Your task to perform on an android device: Add "jbl flip 4" to the cart on walmart Image 0: 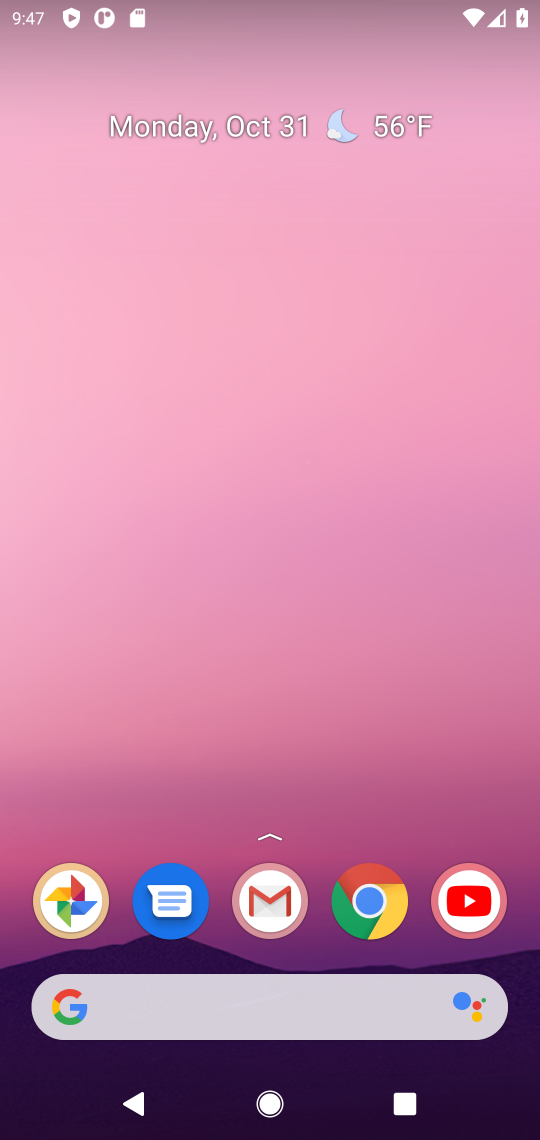
Step 0: drag from (269, 919) to (273, 338)
Your task to perform on an android device: Add "jbl flip 4" to the cart on walmart Image 1: 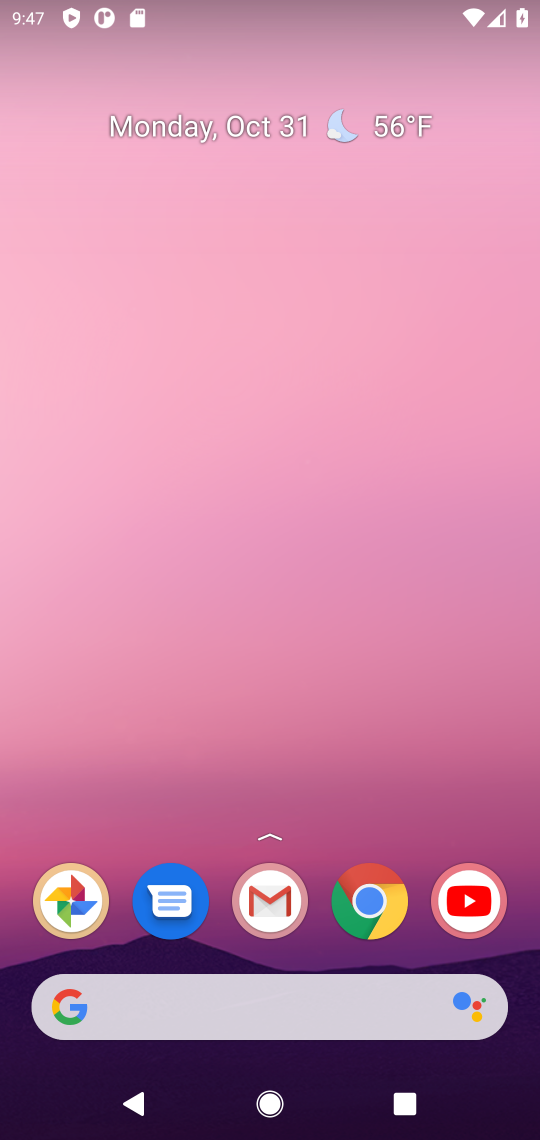
Step 1: drag from (359, 865) to (359, 307)
Your task to perform on an android device: Add "jbl flip 4" to the cart on walmart Image 2: 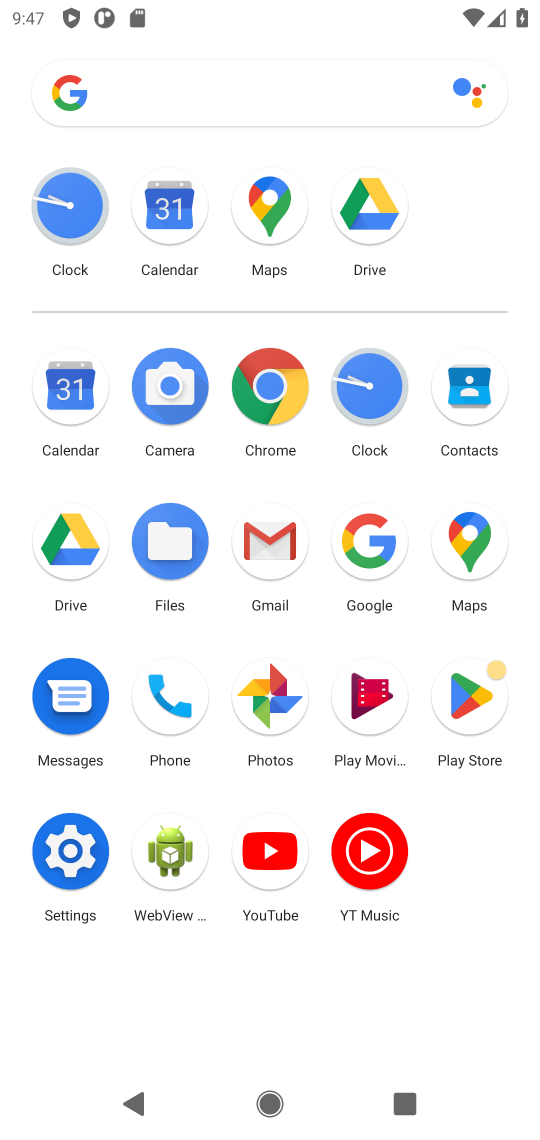
Step 2: click (358, 548)
Your task to perform on an android device: Add "jbl flip 4" to the cart on walmart Image 3: 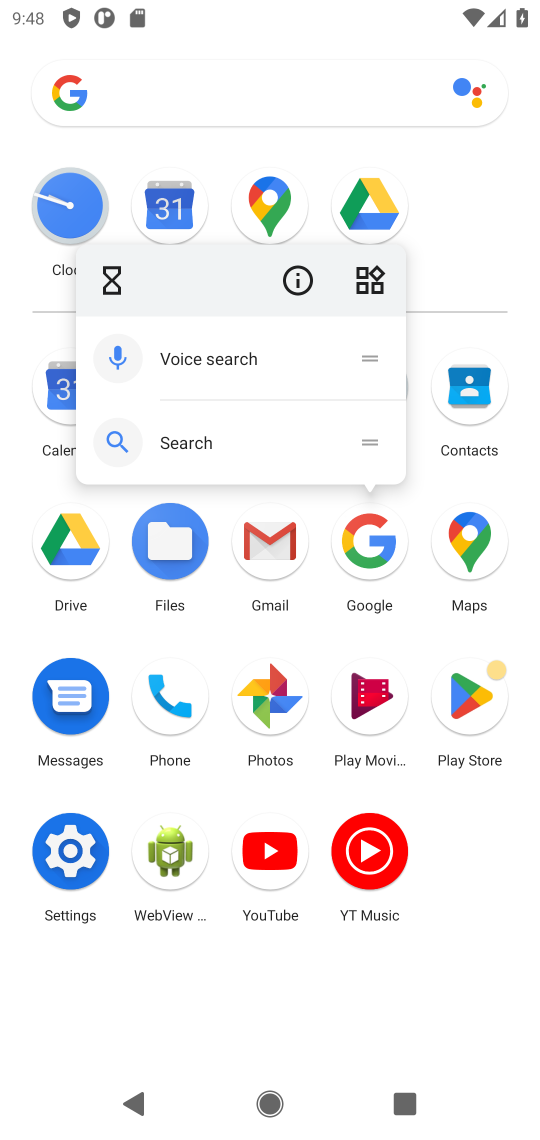
Step 3: click (369, 539)
Your task to perform on an android device: Add "jbl flip 4" to the cart on walmart Image 4: 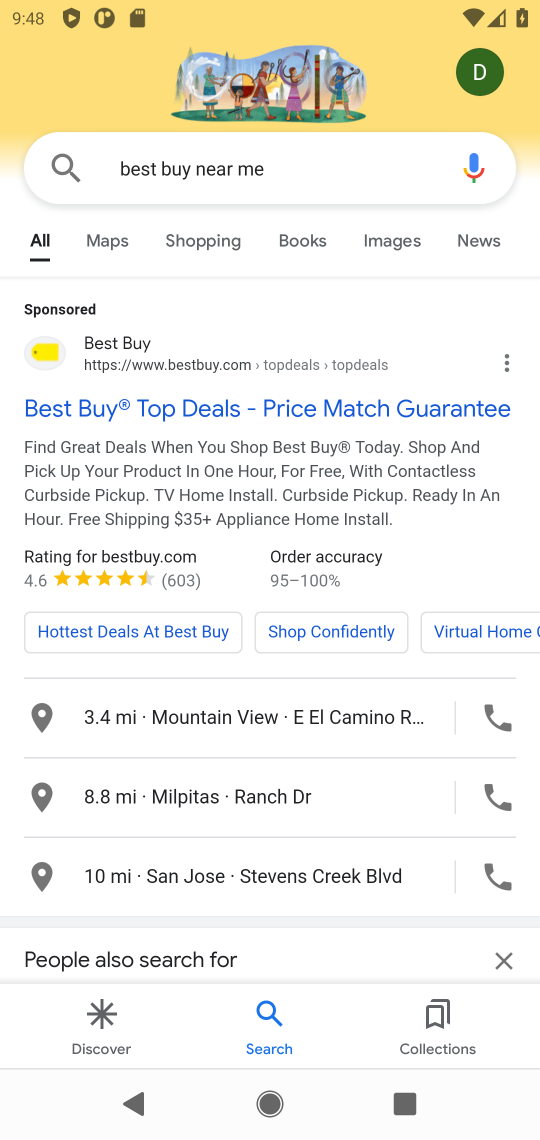
Step 4: click (306, 150)
Your task to perform on an android device: Add "jbl flip 4" to the cart on walmart Image 5: 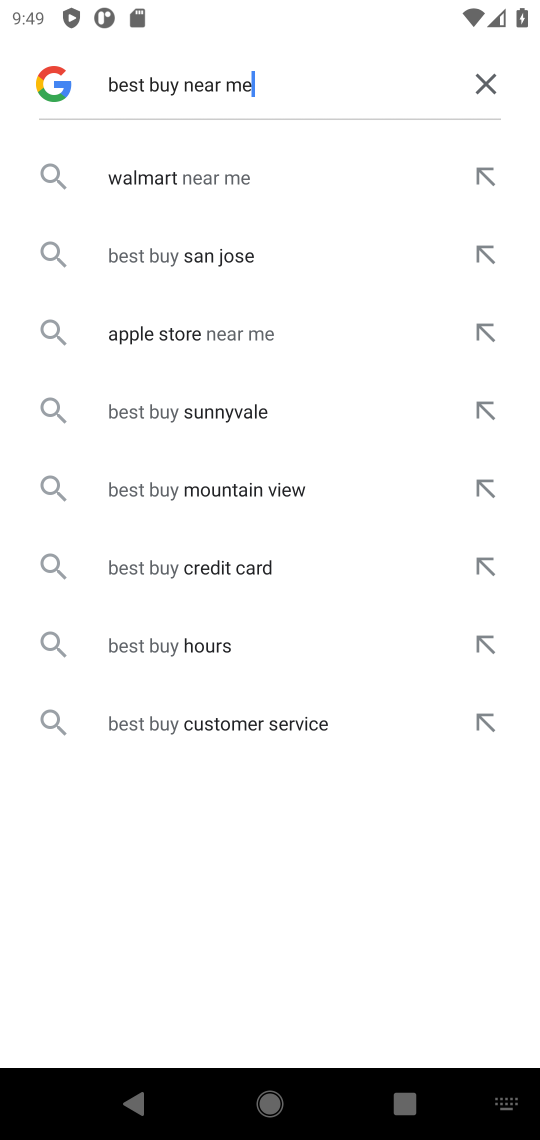
Step 5: click (497, 89)
Your task to perform on an android device: Add "jbl flip 4" to the cart on walmart Image 6: 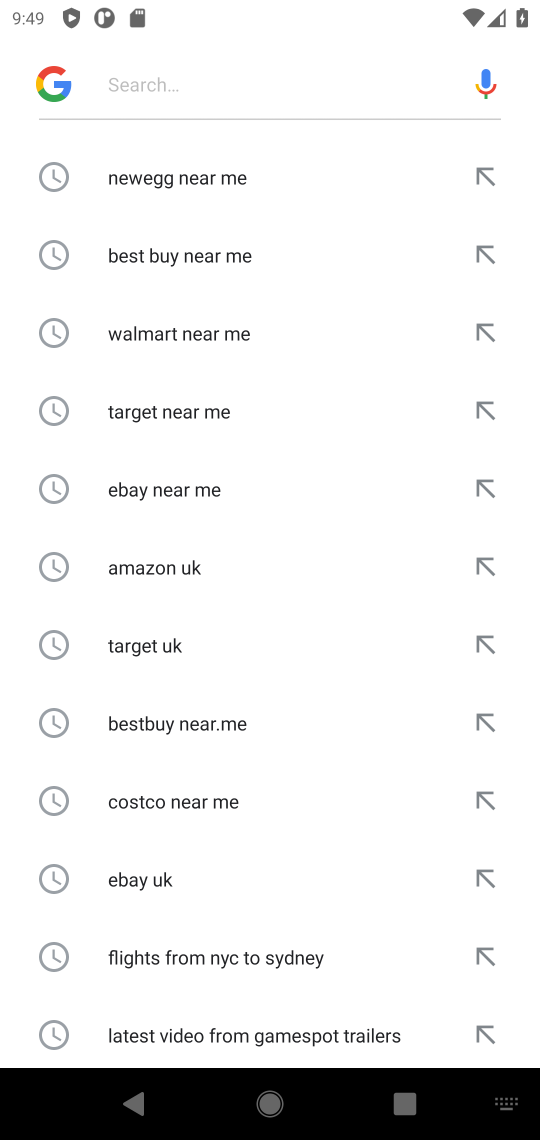
Step 6: click (278, 95)
Your task to perform on an android device: Add "jbl flip 4" to the cart on walmart Image 7: 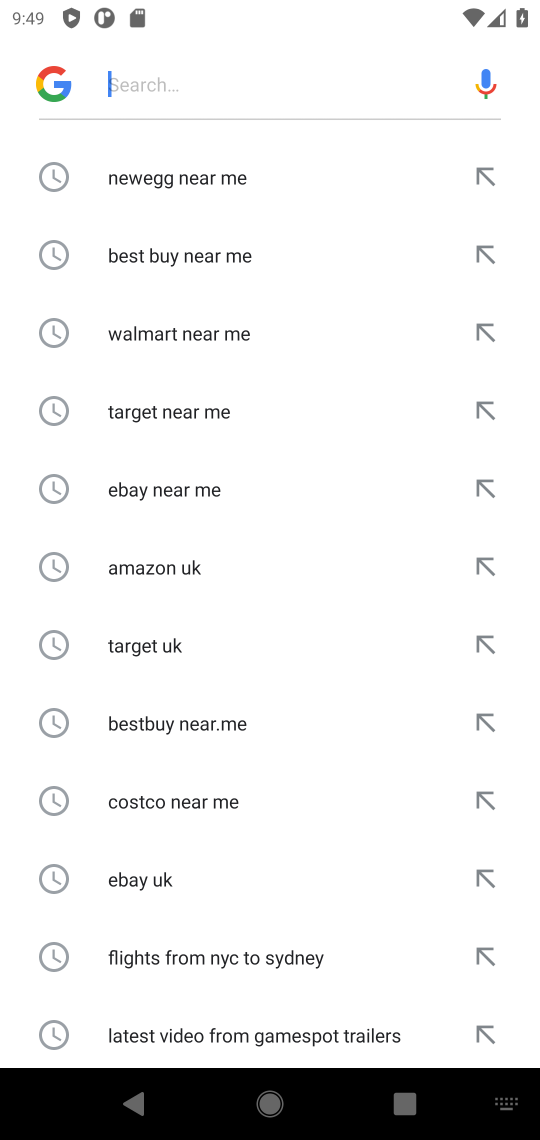
Step 7: type "walmart "
Your task to perform on an android device: Add "jbl flip 4" to the cart on walmart Image 8: 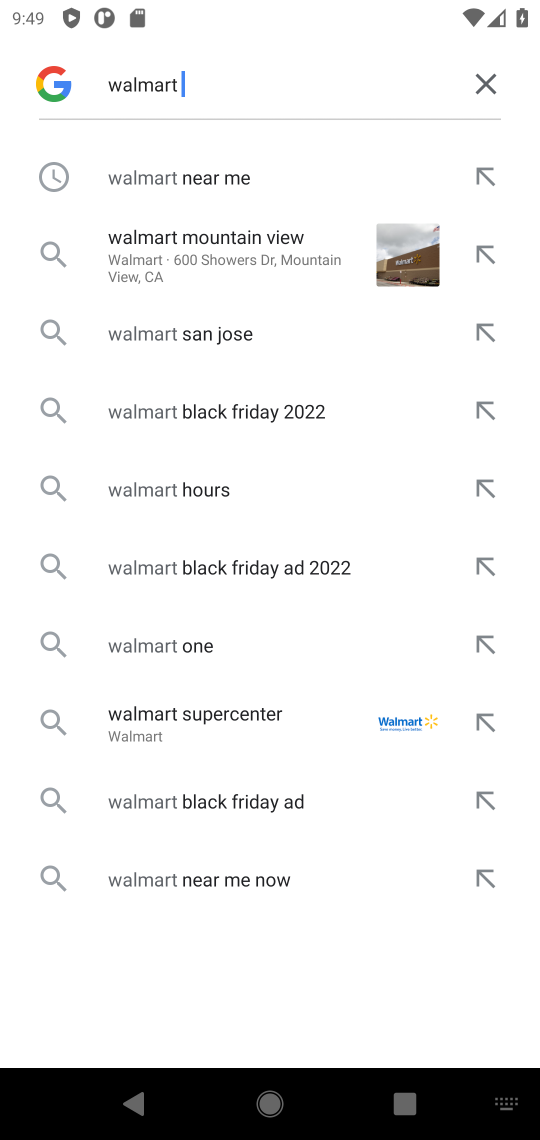
Step 8: click (177, 170)
Your task to perform on an android device: Add "jbl flip 4" to the cart on walmart Image 9: 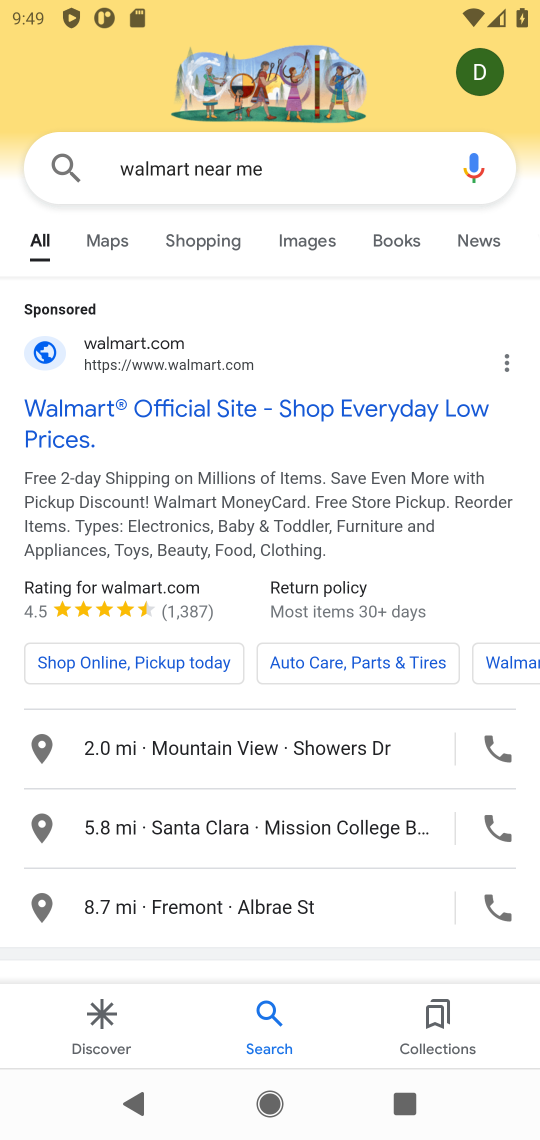
Step 9: drag from (238, 785) to (280, 260)
Your task to perform on an android device: Add "jbl flip 4" to the cart on walmart Image 10: 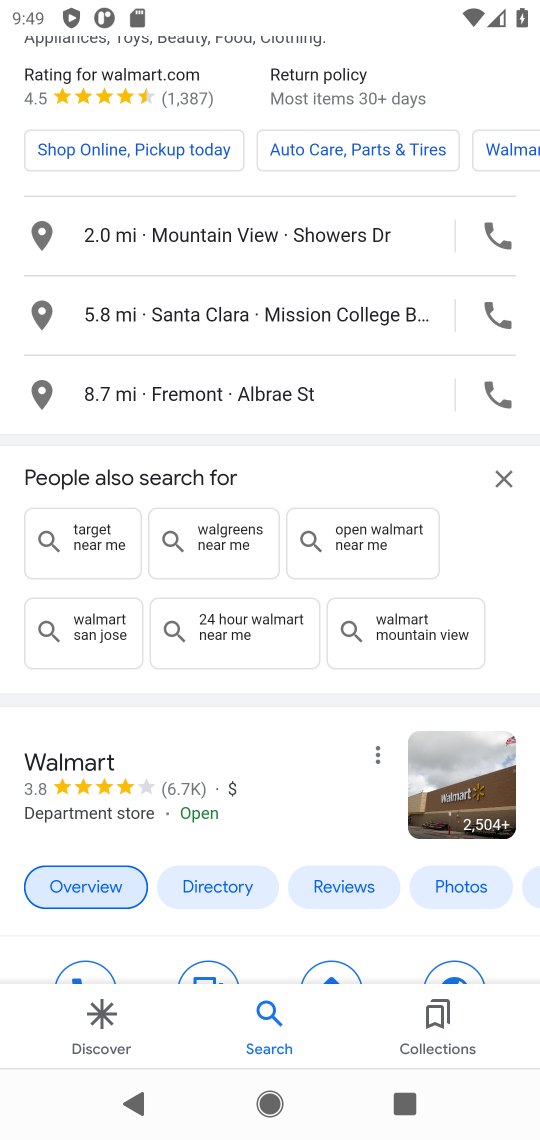
Step 10: drag from (189, 794) to (211, 121)
Your task to perform on an android device: Add "jbl flip 4" to the cart on walmart Image 11: 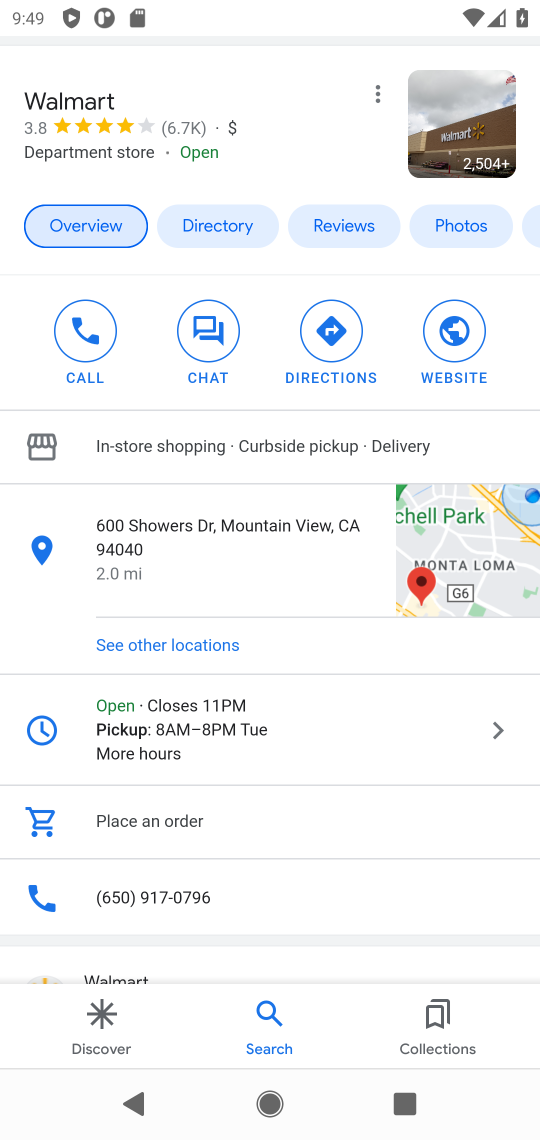
Step 11: drag from (255, 885) to (332, 203)
Your task to perform on an android device: Add "jbl flip 4" to the cart on walmart Image 12: 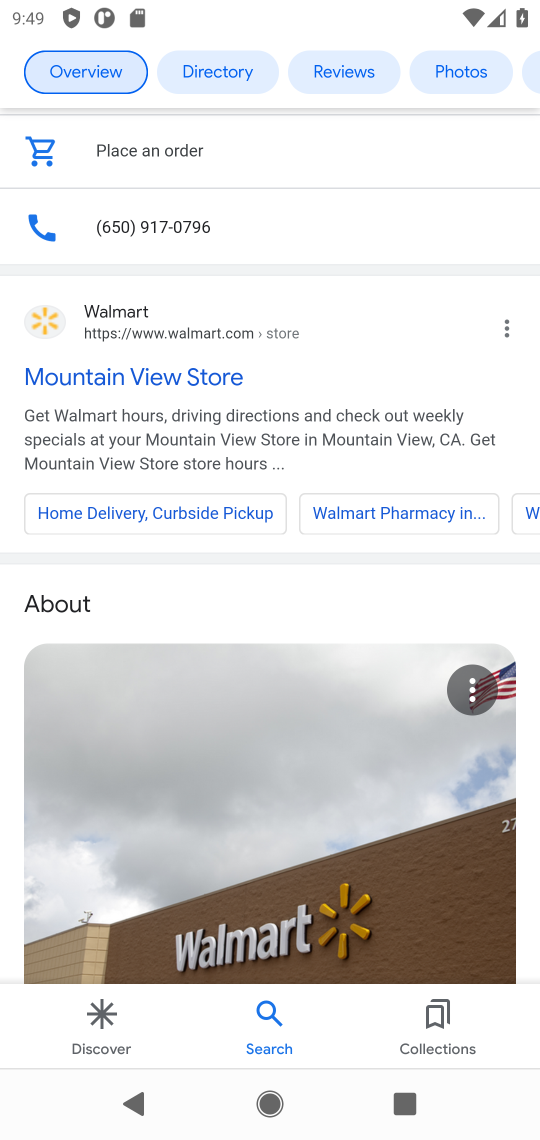
Step 12: click (54, 331)
Your task to perform on an android device: Add "jbl flip 4" to the cart on walmart Image 13: 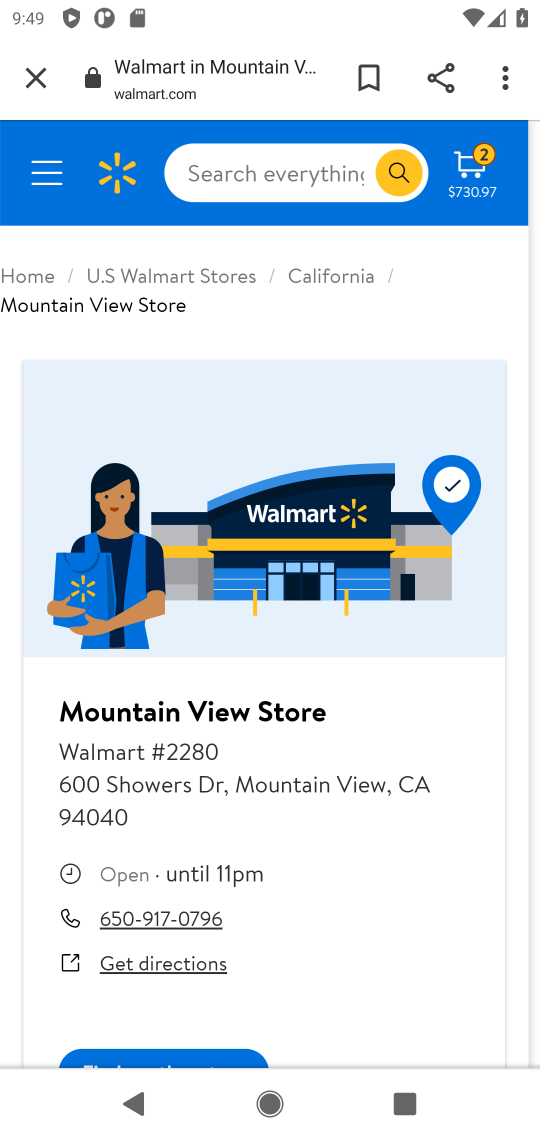
Step 13: drag from (331, 882) to (349, 385)
Your task to perform on an android device: Add "jbl flip 4" to the cart on walmart Image 14: 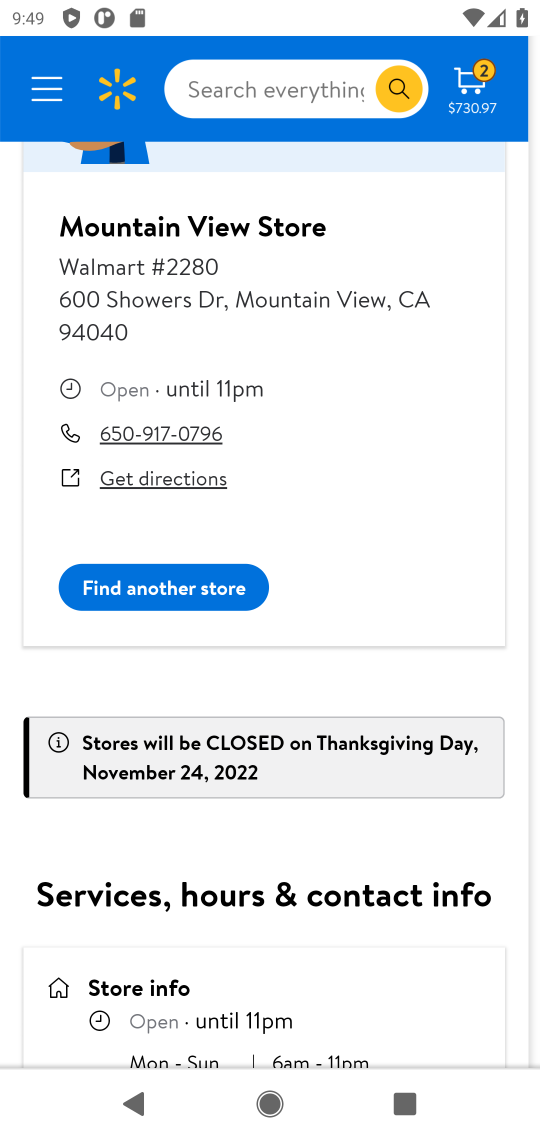
Step 14: click (237, 89)
Your task to perform on an android device: Add "jbl flip 4" to the cart on walmart Image 15: 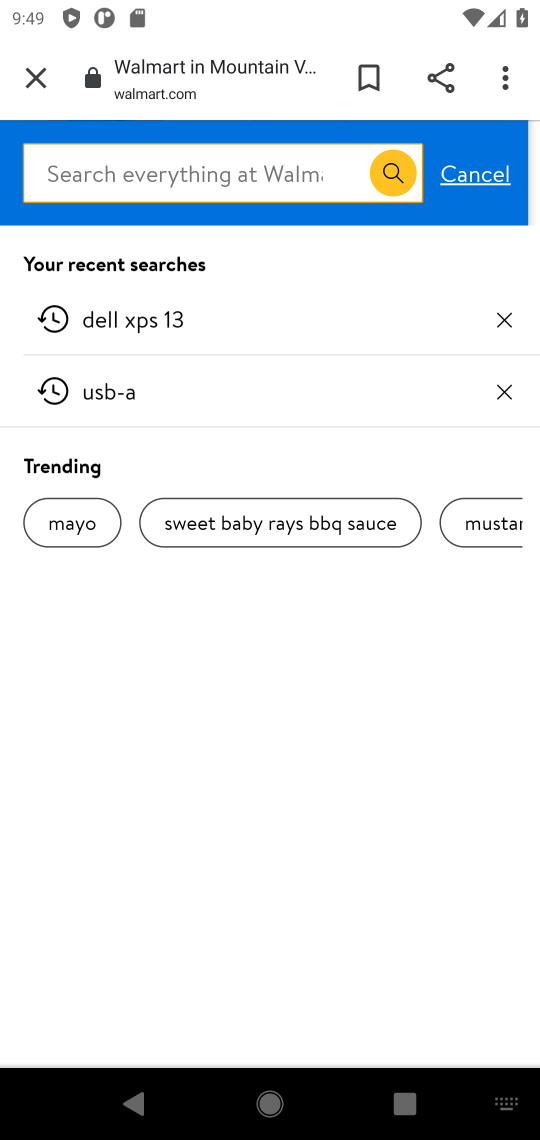
Step 15: click (176, 165)
Your task to perform on an android device: Add "jbl flip 4" to the cart on walmart Image 16: 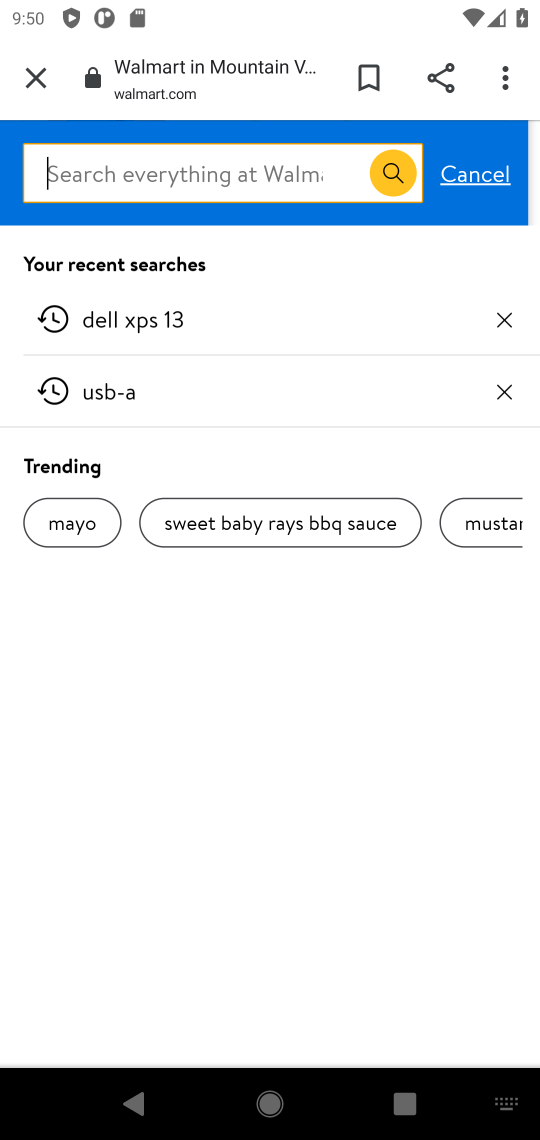
Step 16: type "jblflip 4"
Your task to perform on an android device: Add "jbl flip 4" to the cart on walmart Image 17: 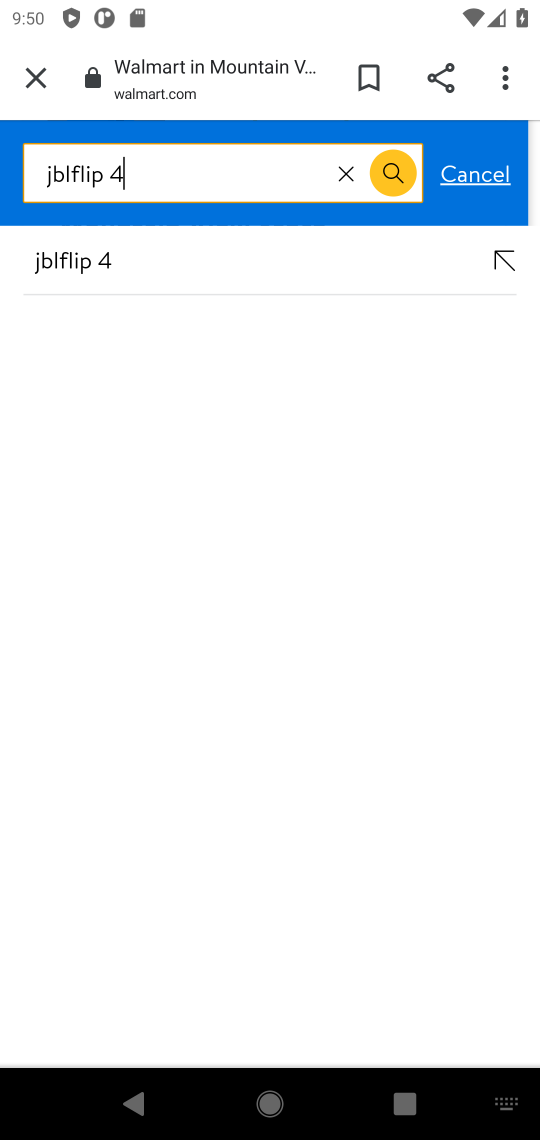
Step 17: click (106, 263)
Your task to perform on an android device: Add "jbl flip 4" to the cart on walmart Image 18: 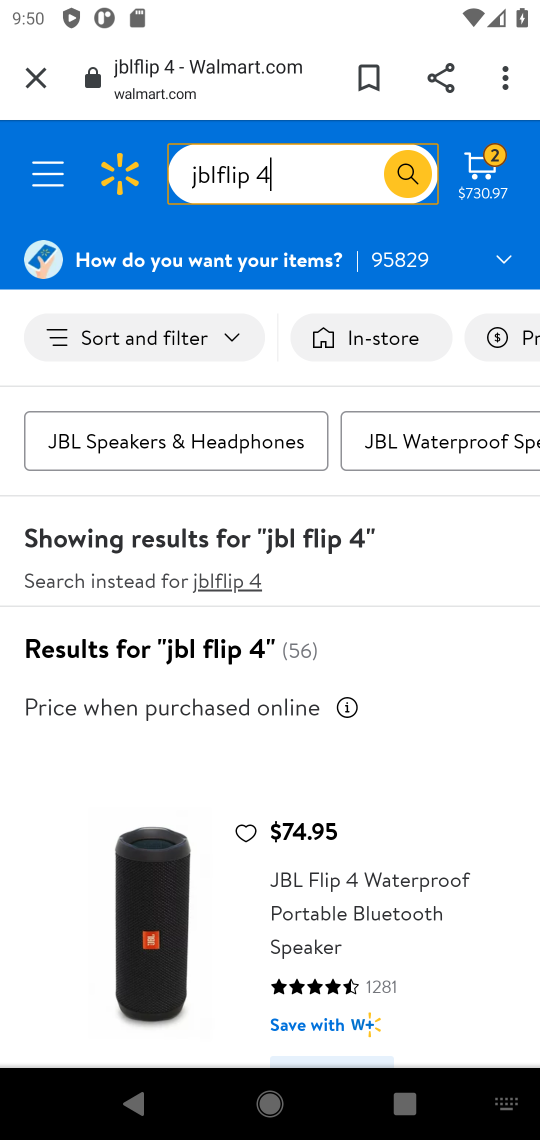
Step 18: drag from (304, 923) to (351, 426)
Your task to perform on an android device: Add "jbl flip 4" to the cart on walmart Image 19: 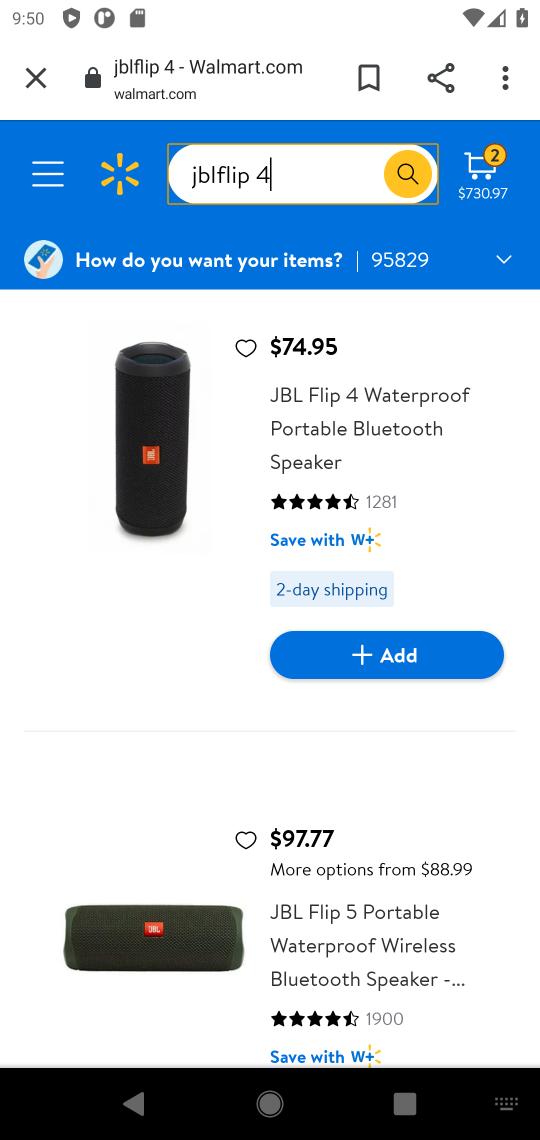
Step 19: click (390, 649)
Your task to perform on an android device: Add "jbl flip 4" to the cart on walmart Image 20: 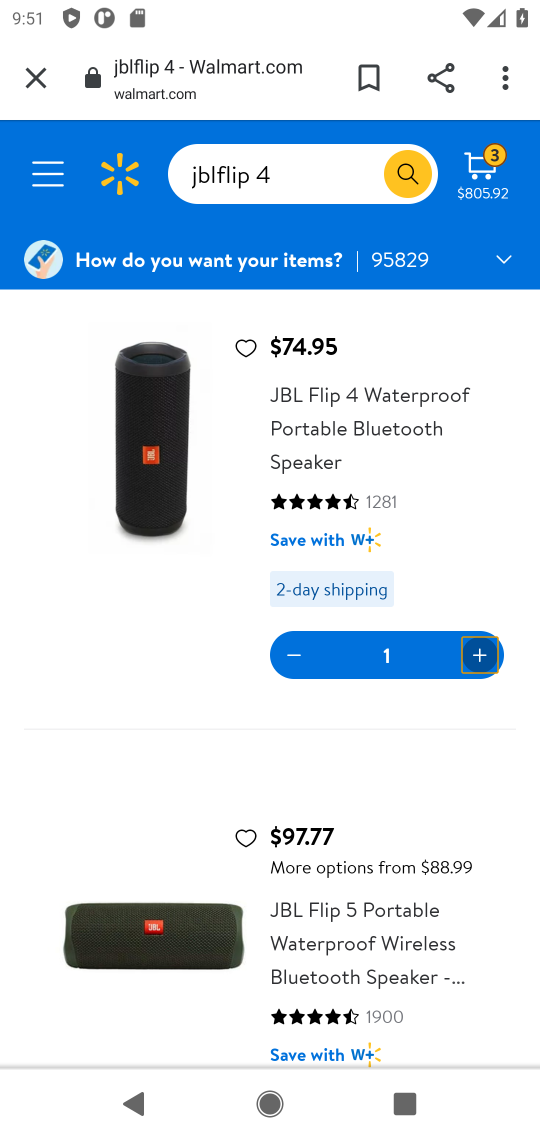
Step 20: task complete